Your task to perform on an android device: When is my next meeting? Image 0: 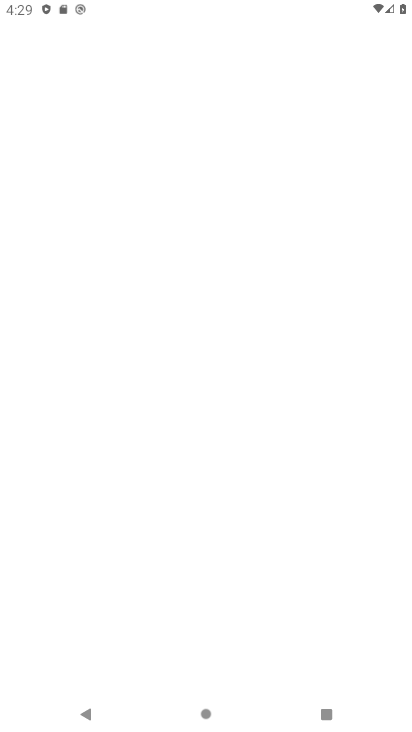
Step 0: drag from (251, 589) to (348, 0)
Your task to perform on an android device: When is my next meeting? Image 1: 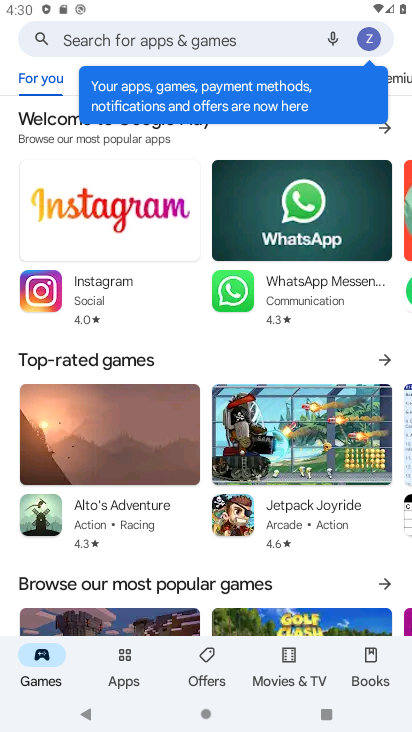
Step 1: press back button
Your task to perform on an android device: When is my next meeting? Image 2: 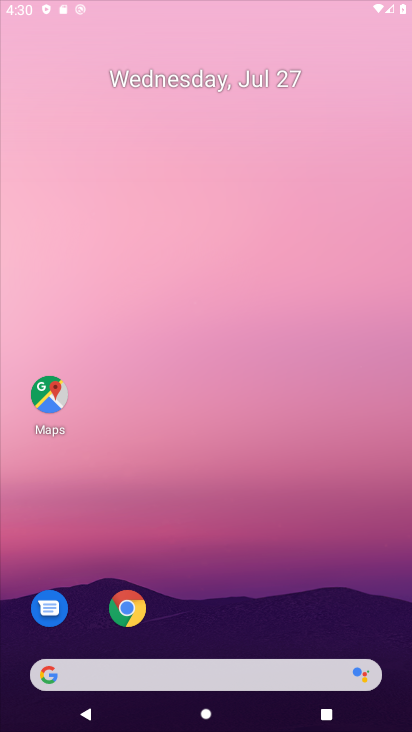
Step 2: press home button
Your task to perform on an android device: When is my next meeting? Image 3: 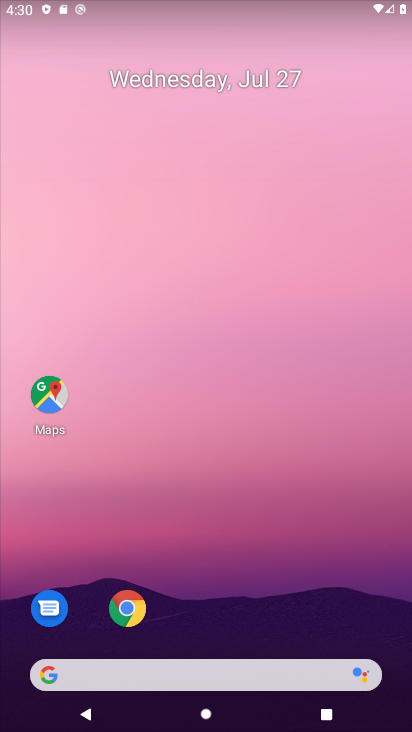
Step 3: press back button
Your task to perform on an android device: When is my next meeting? Image 4: 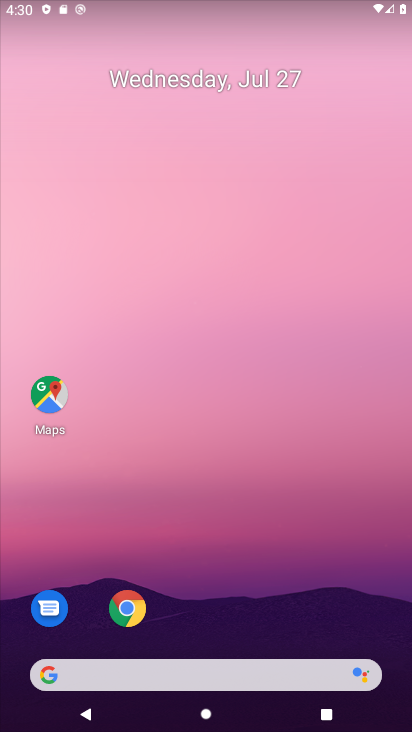
Step 4: drag from (269, 684) to (168, 89)
Your task to perform on an android device: When is my next meeting? Image 5: 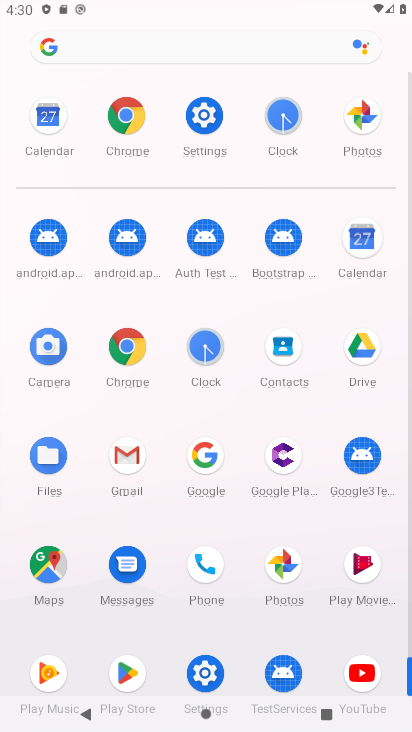
Step 5: click (208, 670)
Your task to perform on an android device: When is my next meeting? Image 6: 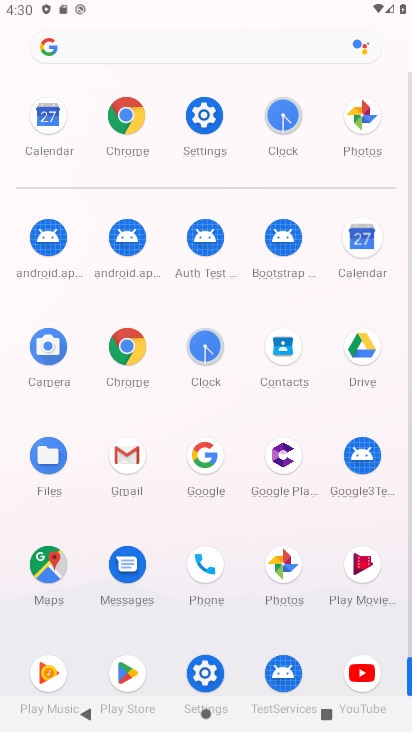
Step 6: click (205, 669)
Your task to perform on an android device: When is my next meeting? Image 7: 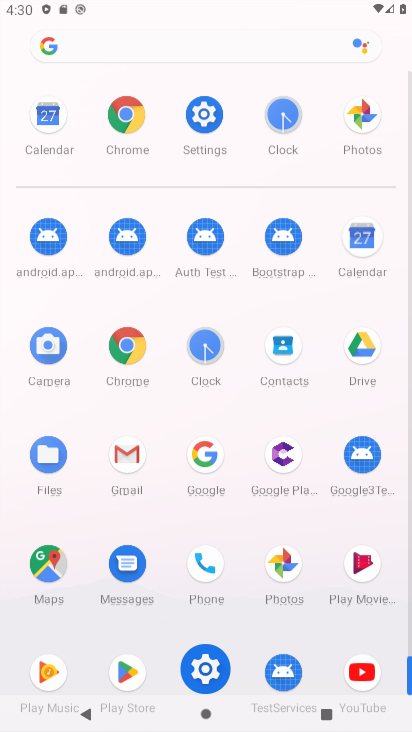
Step 7: click (209, 668)
Your task to perform on an android device: When is my next meeting? Image 8: 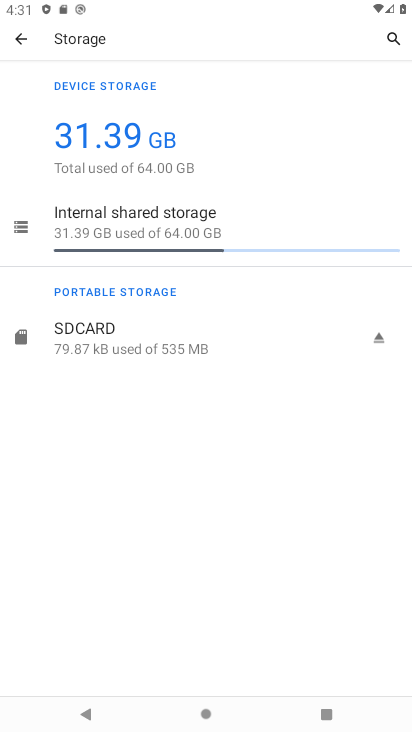
Step 8: click (7, 41)
Your task to perform on an android device: When is my next meeting? Image 9: 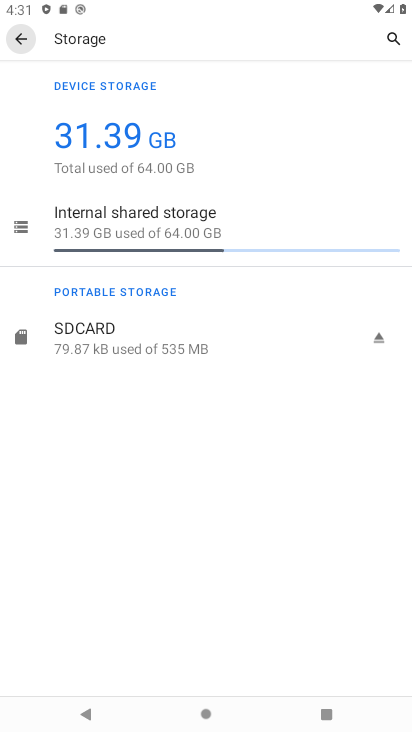
Step 9: click (10, 40)
Your task to perform on an android device: When is my next meeting? Image 10: 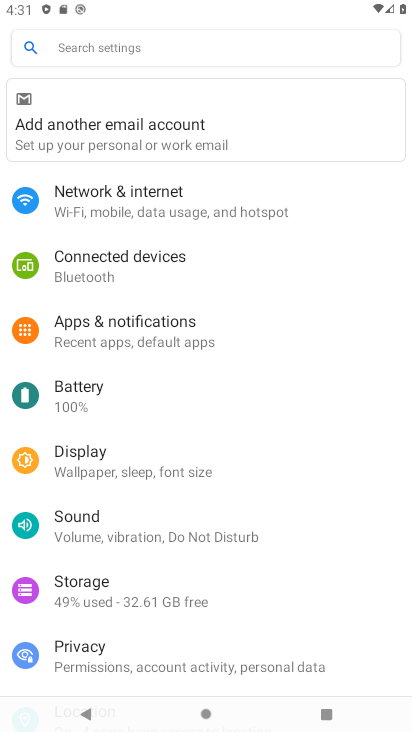
Step 10: drag from (90, 510) to (74, 230)
Your task to perform on an android device: When is my next meeting? Image 11: 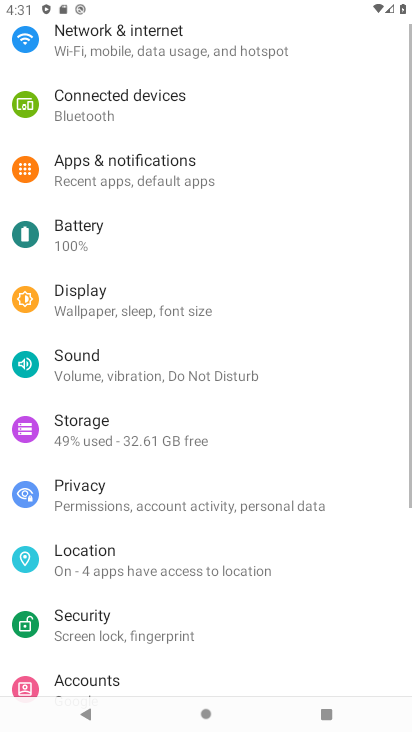
Step 11: drag from (172, 524) to (157, 302)
Your task to perform on an android device: When is my next meeting? Image 12: 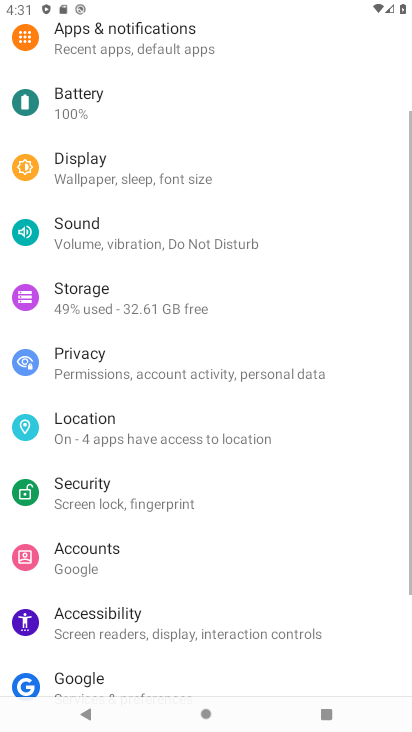
Step 12: drag from (169, 393) to (144, 213)
Your task to perform on an android device: When is my next meeting? Image 13: 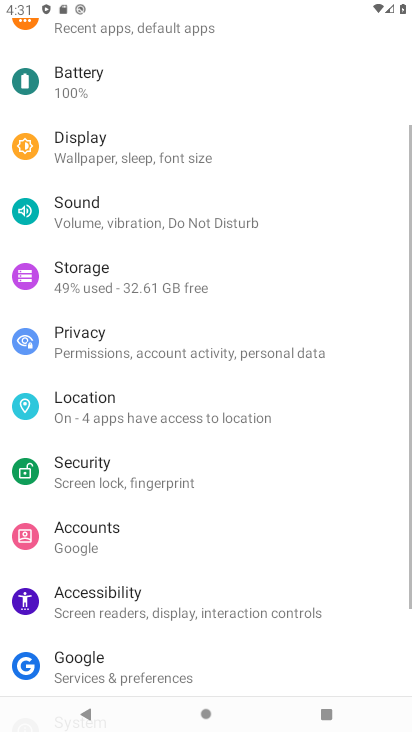
Step 13: drag from (158, 363) to (154, 202)
Your task to perform on an android device: When is my next meeting? Image 14: 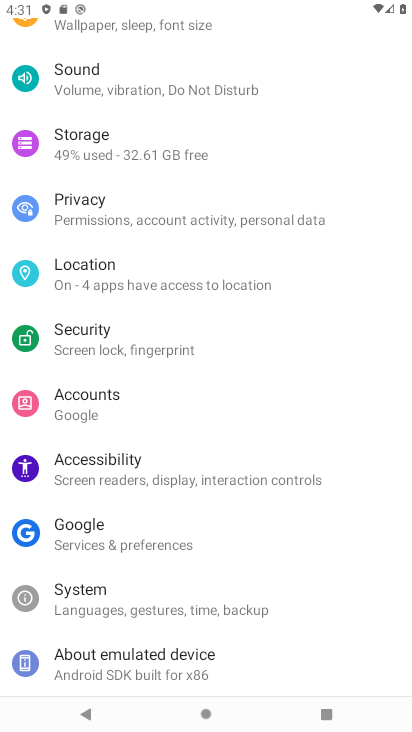
Step 14: drag from (167, 349) to (314, 675)
Your task to perform on an android device: When is my next meeting? Image 15: 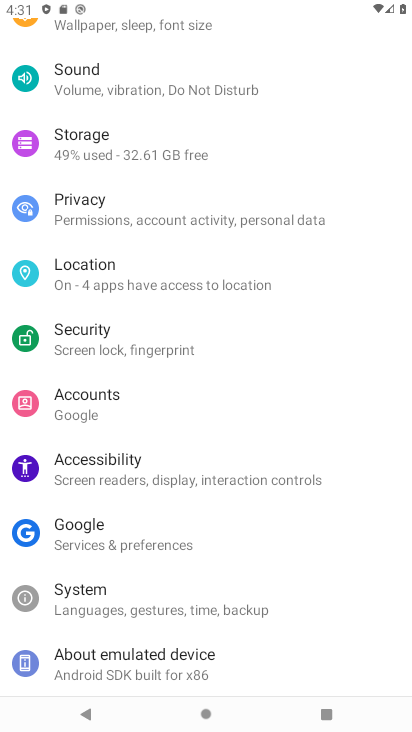
Step 15: press back button
Your task to perform on an android device: When is my next meeting? Image 16: 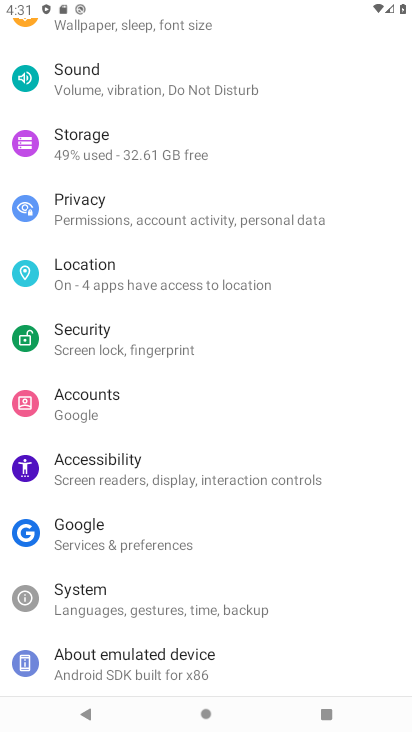
Step 16: press back button
Your task to perform on an android device: When is my next meeting? Image 17: 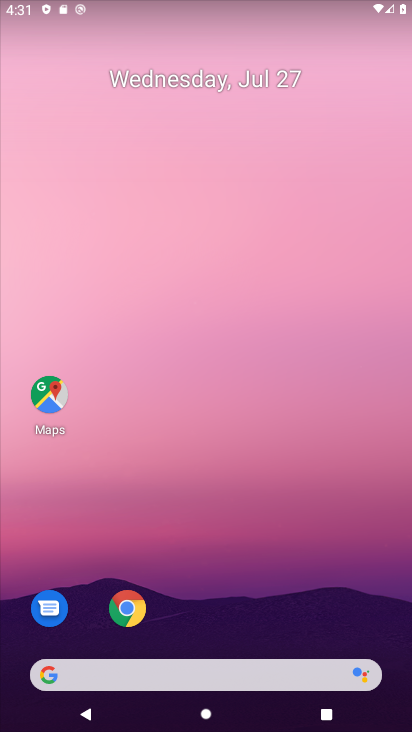
Step 17: drag from (224, 619) to (132, 285)
Your task to perform on an android device: When is my next meeting? Image 18: 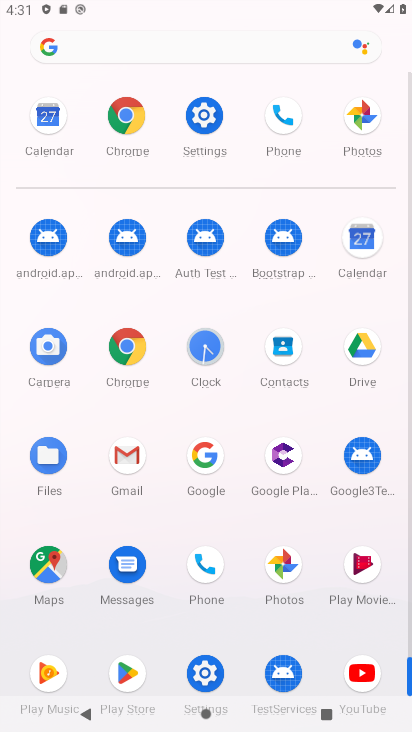
Step 18: click (371, 233)
Your task to perform on an android device: When is my next meeting? Image 19: 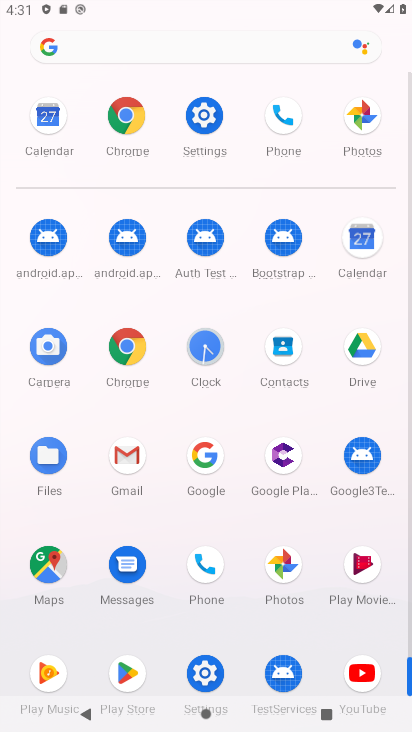
Step 19: click (368, 235)
Your task to perform on an android device: When is my next meeting? Image 20: 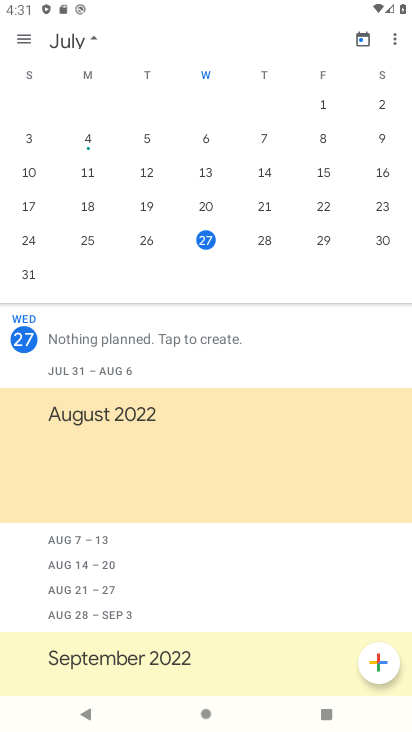
Step 20: click (203, 99)
Your task to perform on an android device: When is my next meeting? Image 21: 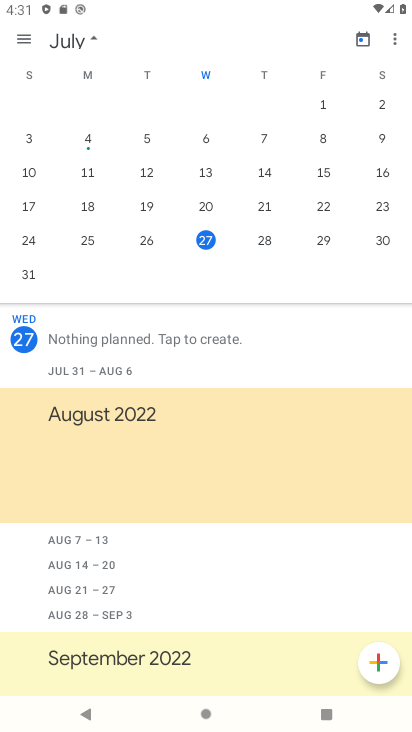
Step 21: task complete